Your task to perform on an android device: turn off sleep mode Image 0: 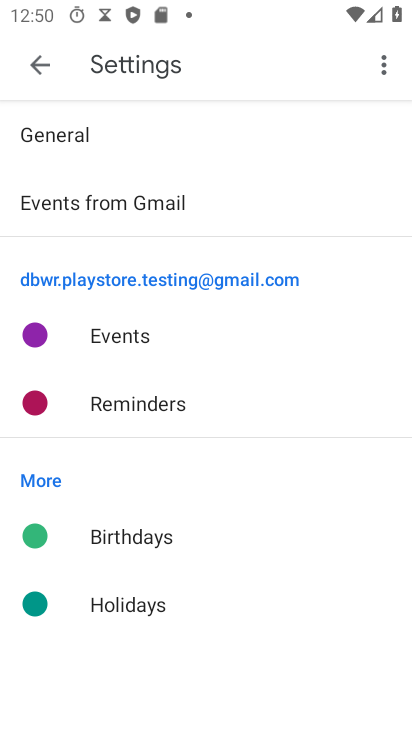
Step 0: press back button
Your task to perform on an android device: turn off sleep mode Image 1: 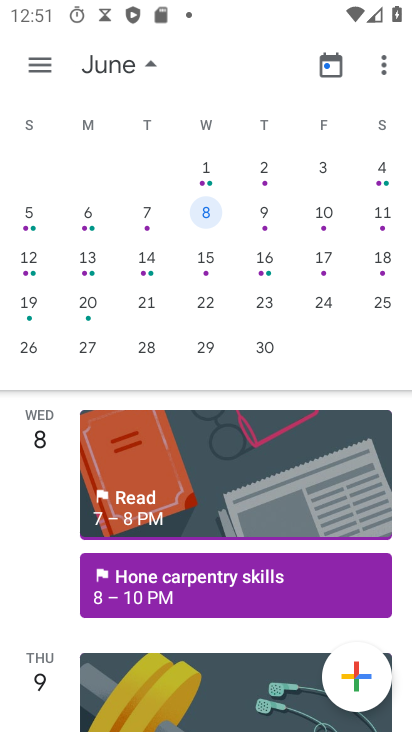
Step 1: press home button
Your task to perform on an android device: turn off sleep mode Image 2: 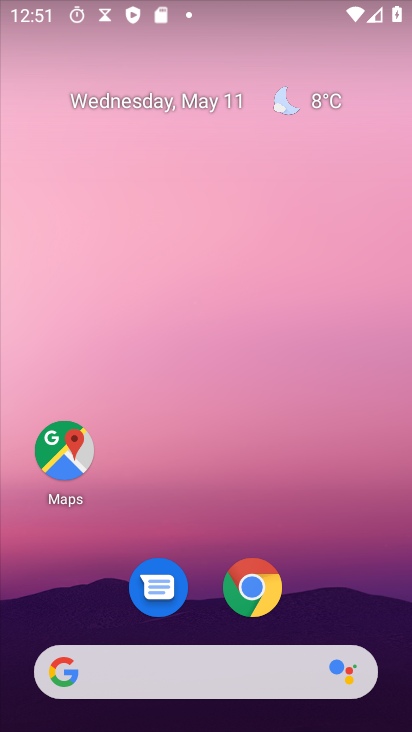
Step 2: drag from (365, 655) to (197, 59)
Your task to perform on an android device: turn off sleep mode Image 3: 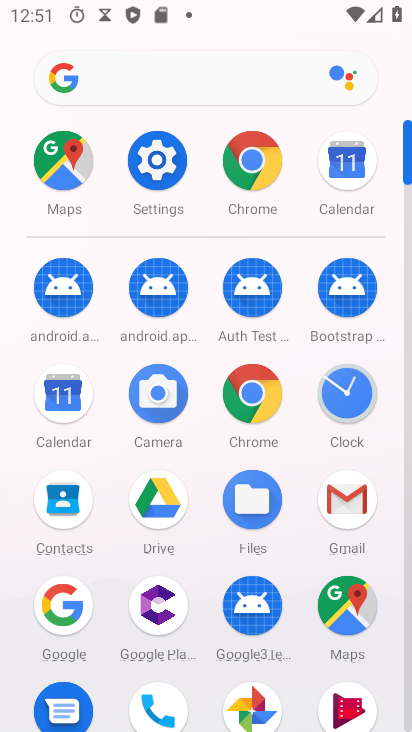
Step 3: click (163, 168)
Your task to perform on an android device: turn off sleep mode Image 4: 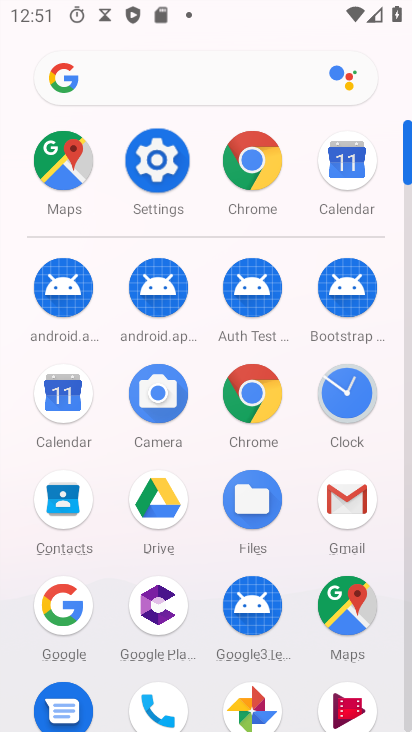
Step 4: click (161, 168)
Your task to perform on an android device: turn off sleep mode Image 5: 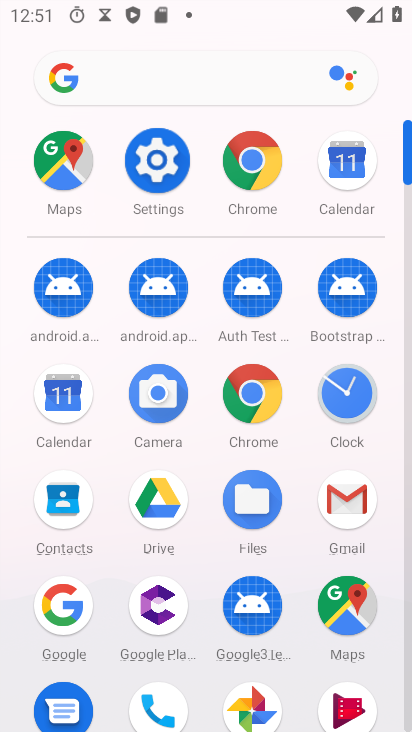
Step 5: click (161, 168)
Your task to perform on an android device: turn off sleep mode Image 6: 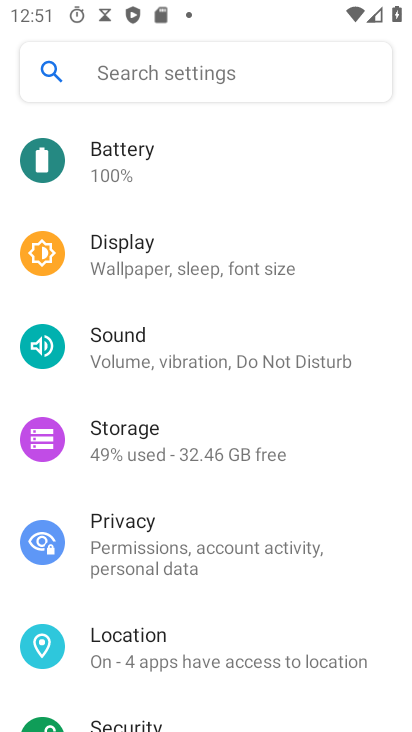
Step 6: click (132, 274)
Your task to perform on an android device: turn off sleep mode Image 7: 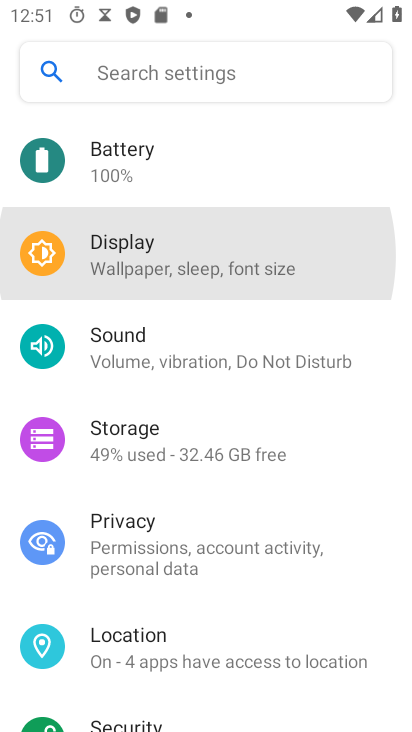
Step 7: click (132, 273)
Your task to perform on an android device: turn off sleep mode Image 8: 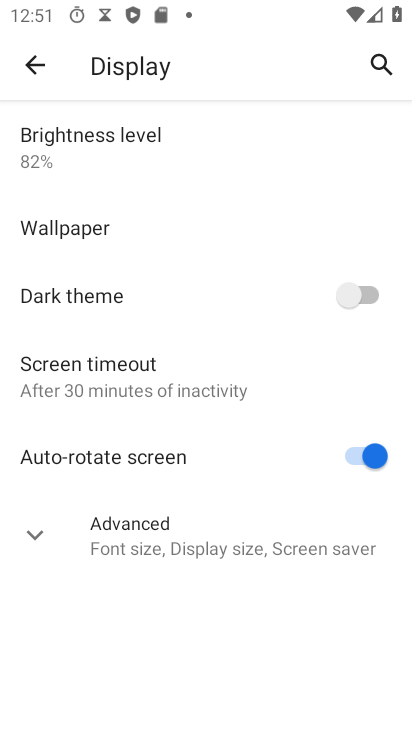
Step 8: click (106, 384)
Your task to perform on an android device: turn off sleep mode Image 9: 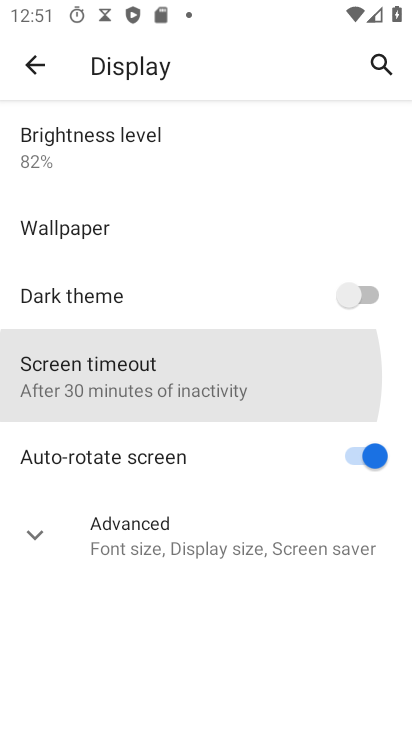
Step 9: click (105, 385)
Your task to perform on an android device: turn off sleep mode Image 10: 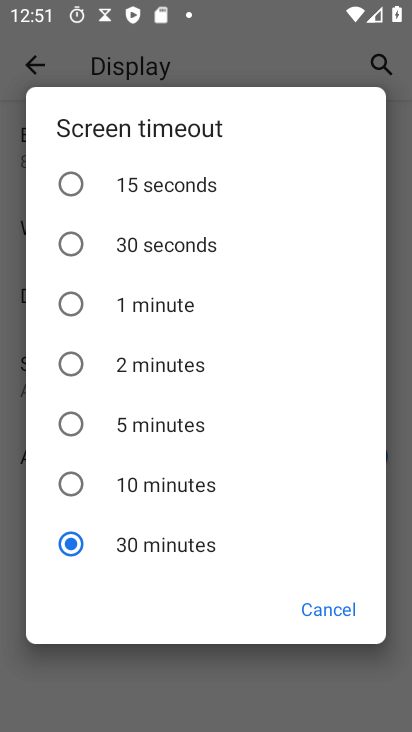
Step 10: task complete